Your task to perform on an android device: add a label to a message in the gmail app Image 0: 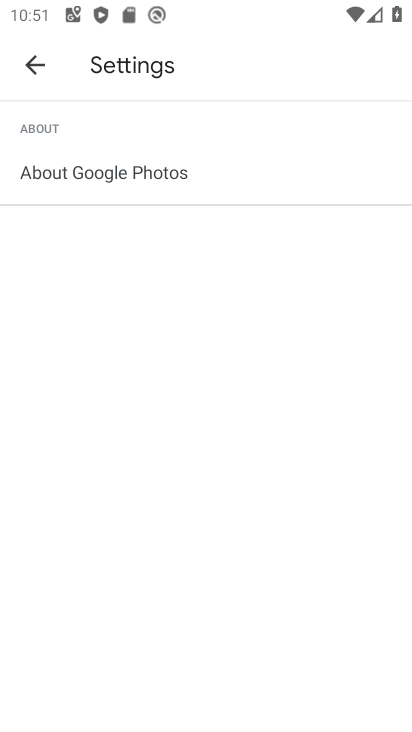
Step 0: click (378, 615)
Your task to perform on an android device: add a label to a message in the gmail app Image 1: 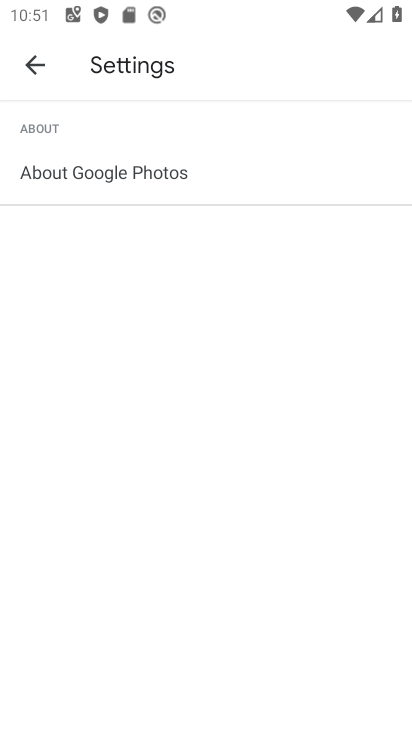
Step 1: click (29, 71)
Your task to perform on an android device: add a label to a message in the gmail app Image 2: 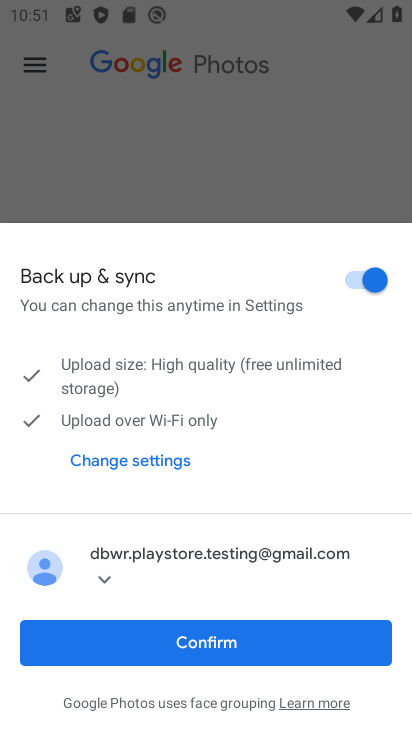
Step 2: click (228, 649)
Your task to perform on an android device: add a label to a message in the gmail app Image 3: 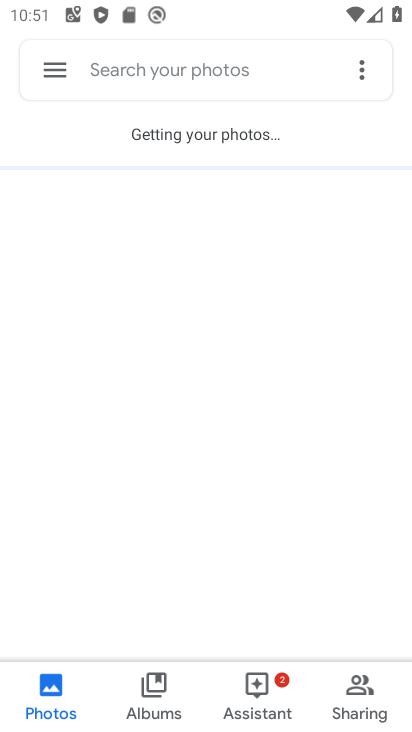
Step 3: press home button
Your task to perform on an android device: add a label to a message in the gmail app Image 4: 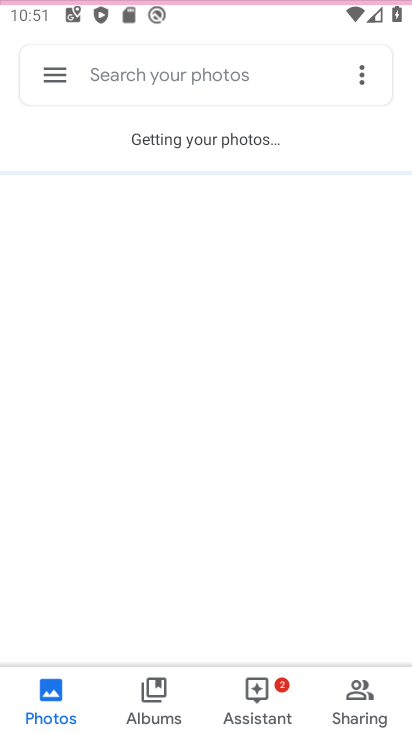
Step 4: press home button
Your task to perform on an android device: add a label to a message in the gmail app Image 5: 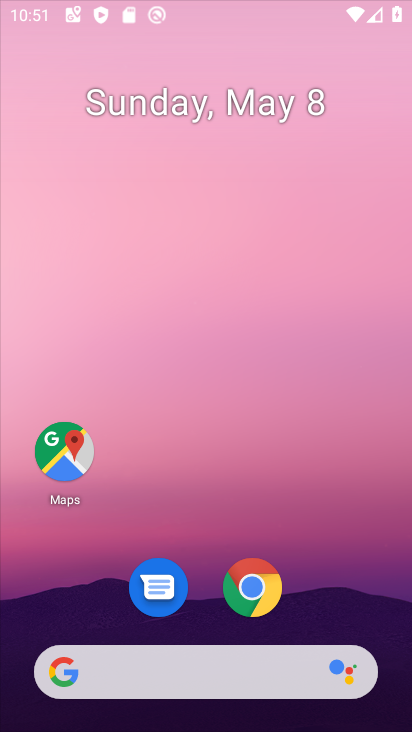
Step 5: press home button
Your task to perform on an android device: add a label to a message in the gmail app Image 6: 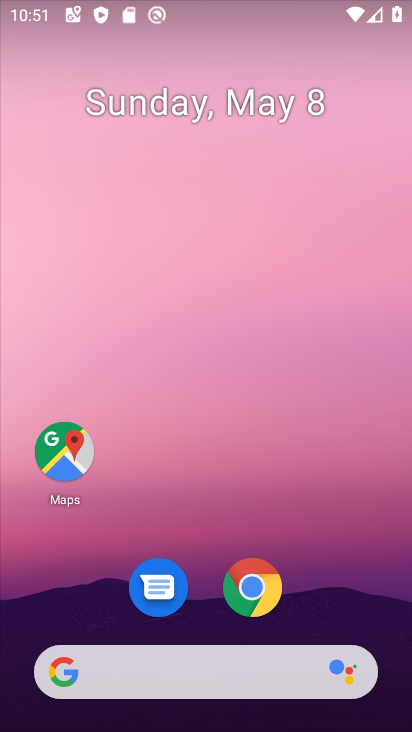
Step 6: drag from (342, 622) to (88, 36)
Your task to perform on an android device: add a label to a message in the gmail app Image 7: 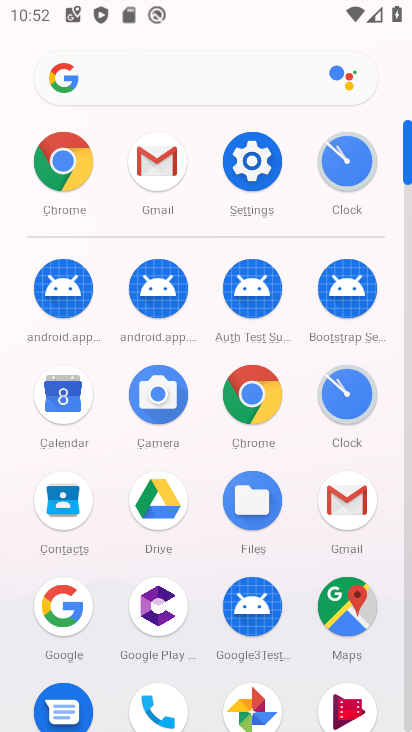
Step 7: click (344, 505)
Your task to perform on an android device: add a label to a message in the gmail app Image 8: 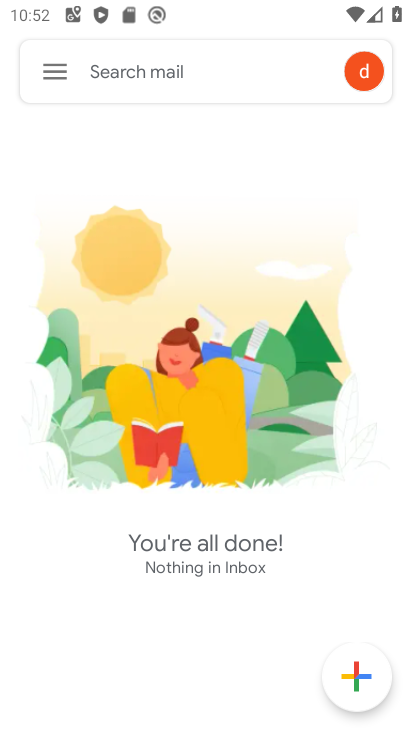
Step 8: click (58, 65)
Your task to perform on an android device: add a label to a message in the gmail app Image 9: 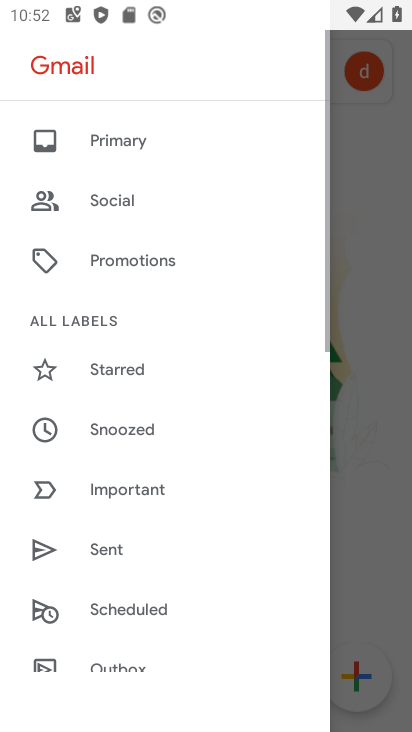
Step 9: click (57, 70)
Your task to perform on an android device: add a label to a message in the gmail app Image 10: 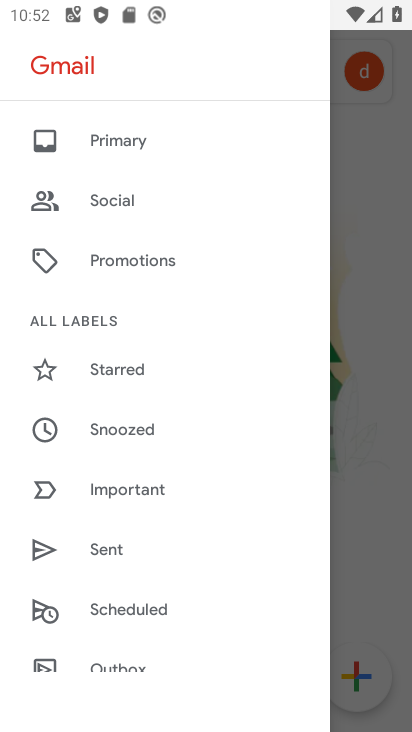
Step 10: drag from (179, 568) to (140, 54)
Your task to perform on an android device: add a label to a message in the gmail app Image 11: 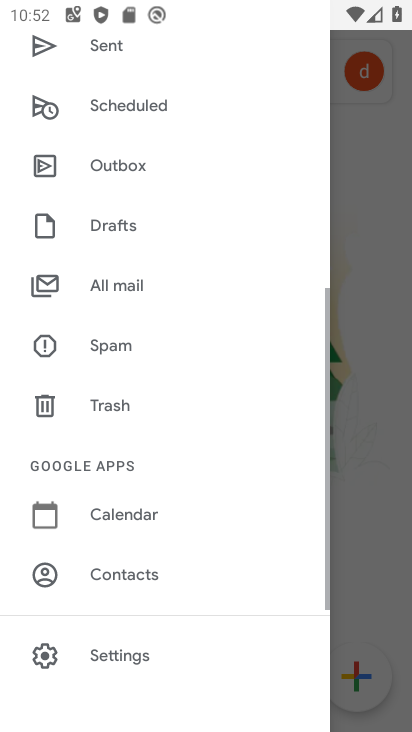
Step 11: drag from (180, 578) to (148, 225)
Your task to perform on an android device: add a label to a message in the gmail app Image 12: 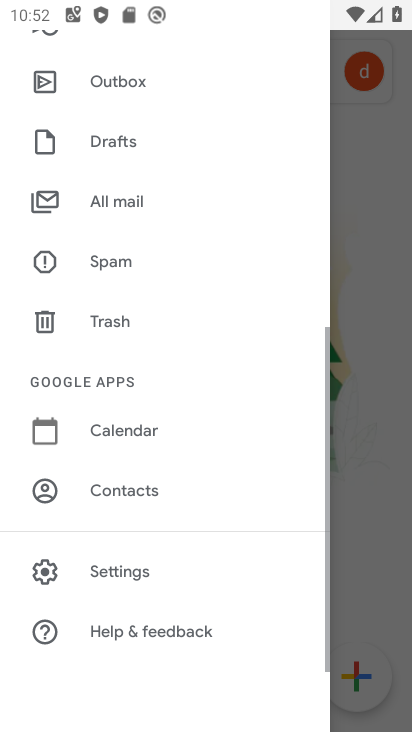
Step 12: click (122, 199)
Your task to perform on an android device: add a label to a message in the gmail app Image 13: 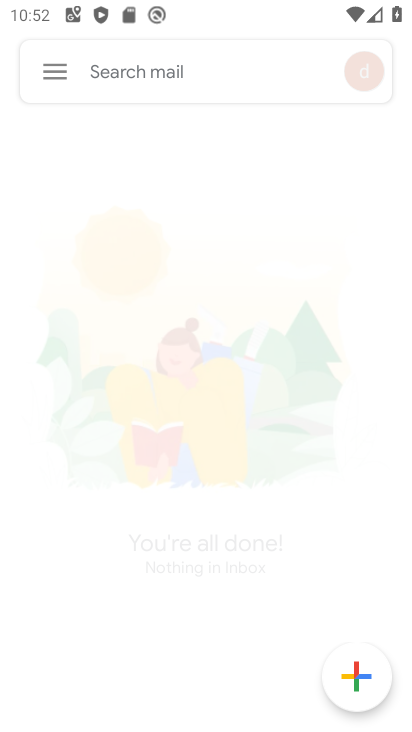
Step 13: click (122, 199)
Your task to perform on an android device: add a label to a message in the gmail app Image 14: 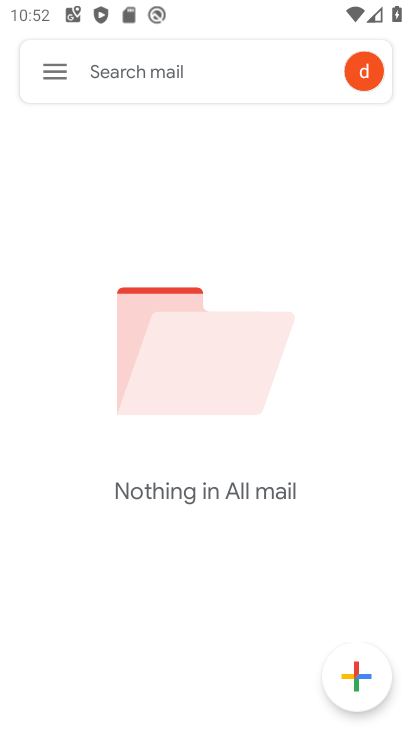
Step 14: task complete